Your task to perform on an android device: turn off notifications settings in the gmail app Image 0: 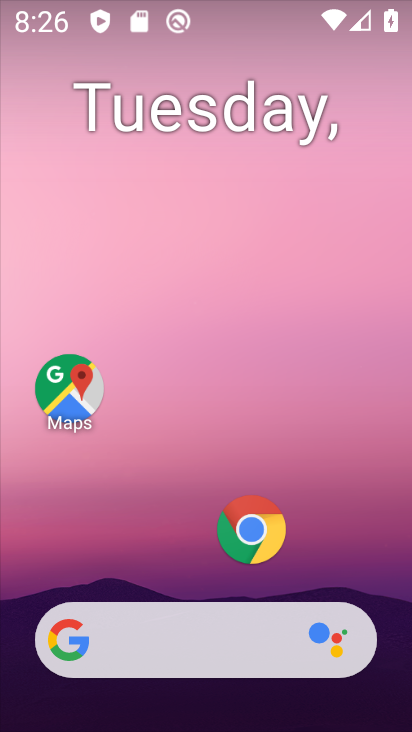
Step 0: press home button
Your task to perform on an android device: turn off notifications settings in the gmail app Image 1: 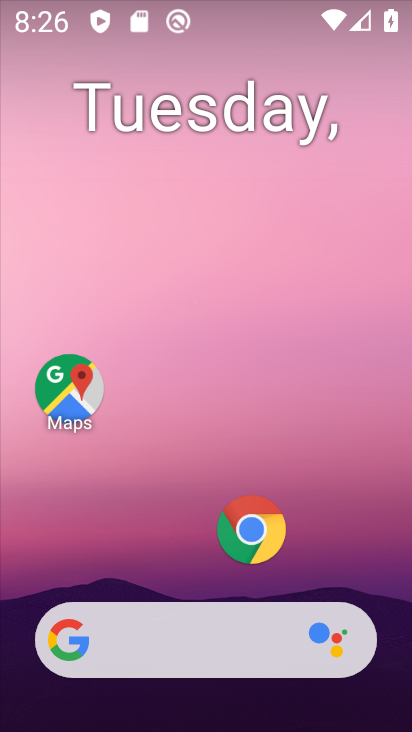
Step 1: drag from (197, 582) to (240, 29)
Your task to perform on an android device: turn off notifications settings in the gmail app Image 2: 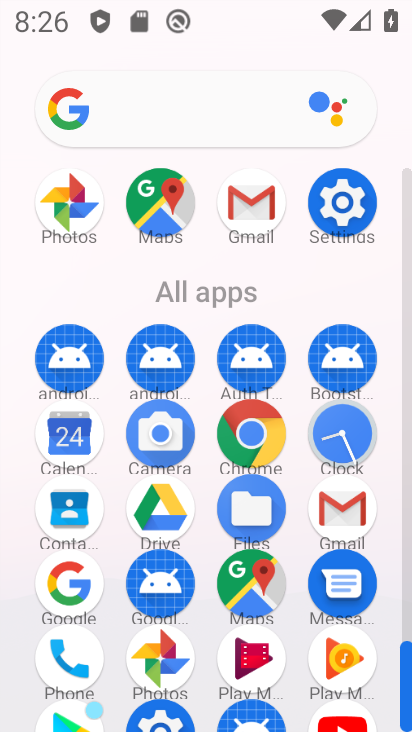
Step 2: click (337, 510)
Your task to perform on an android device: turn off notifications settings in the gmail app Image 3: 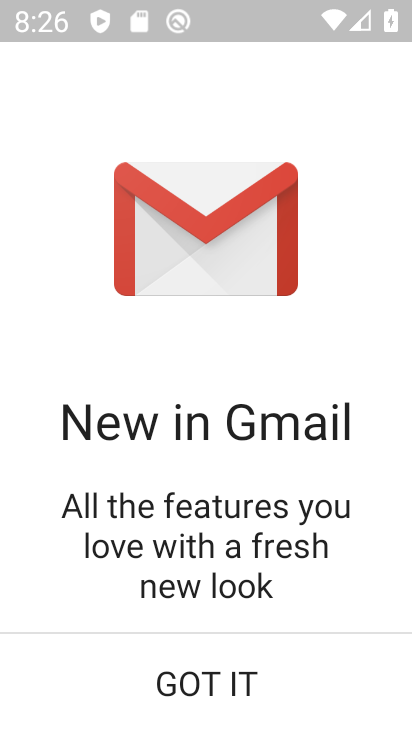
Step 3: click (209, 702)
Your task to perform on an android device: turn off notifications settings in the gmail app Image 4: 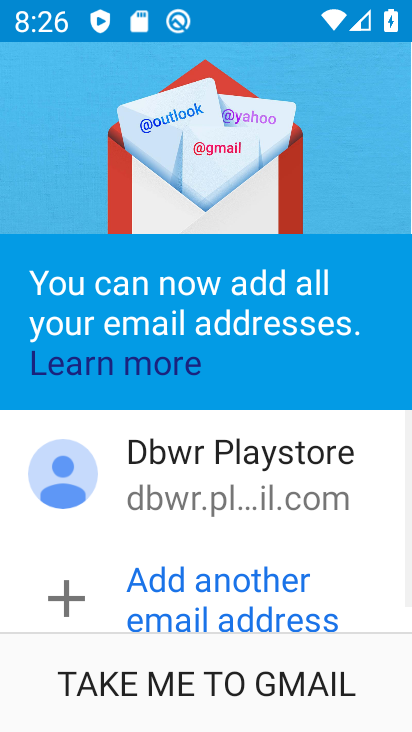
Step 4: click (209, 701)
Your task to perform on an android device: turn off notifications settings in the gmail app Image 5: 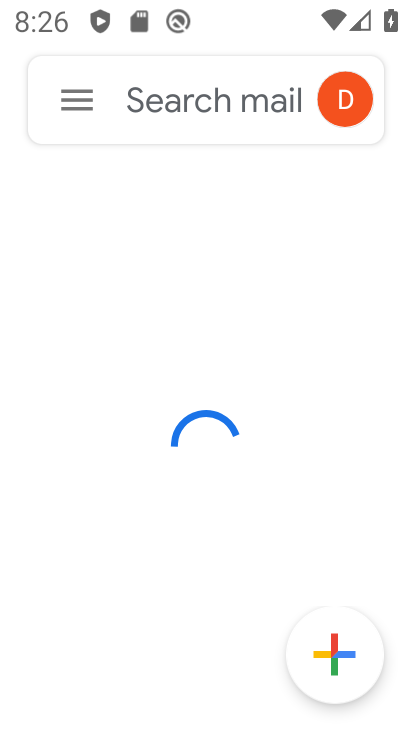
Step 5: click (72, 89)
Your task to perform on an android device: turn off notifications settings in the gmail app Image 6: 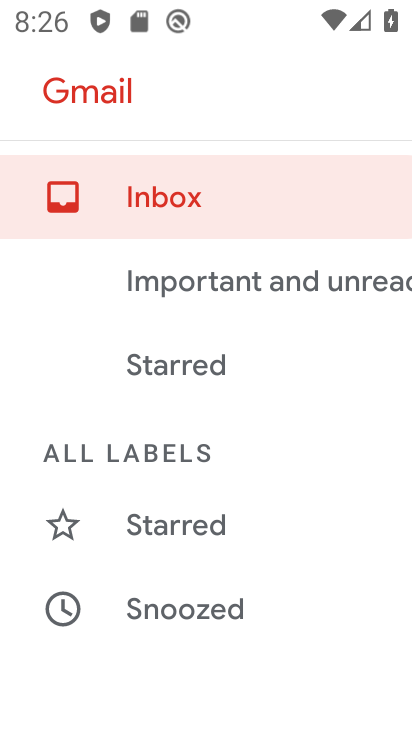
Step 6: drag from (182, 570) to (225, 65)
Your task to perform on an android device: turn off notifications settings in the gmail app Image 7: 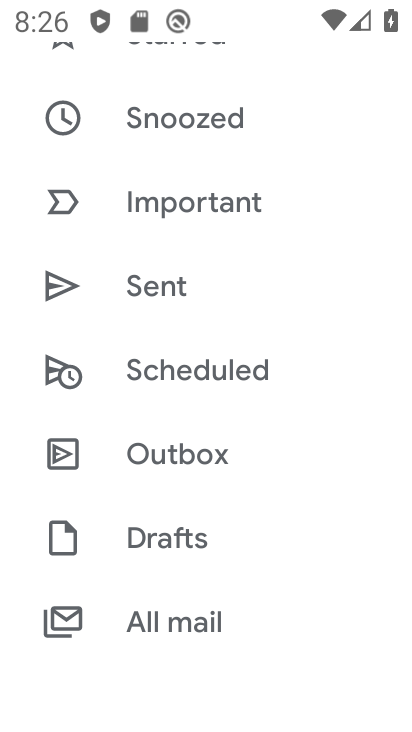
Step 7: drag from (197, 601) to (231, 106)
Your task to perform on an android device: turn off notifications settings in the gmail app Image 8: 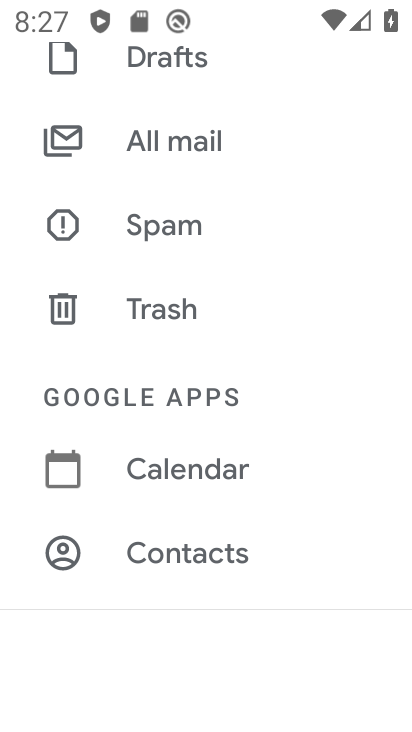
Step 8: drag from (174, 557) to (222, 171)
Your task to perform on an android device: turn off notifications settings in the gmail app Image 9: 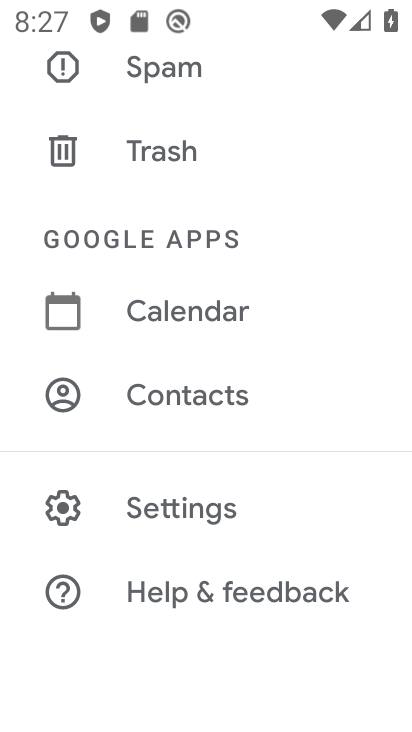
Step 9: click (258, 508)
Your task to perform on an android device: turn off notifications settings in the gmail app Image 10: 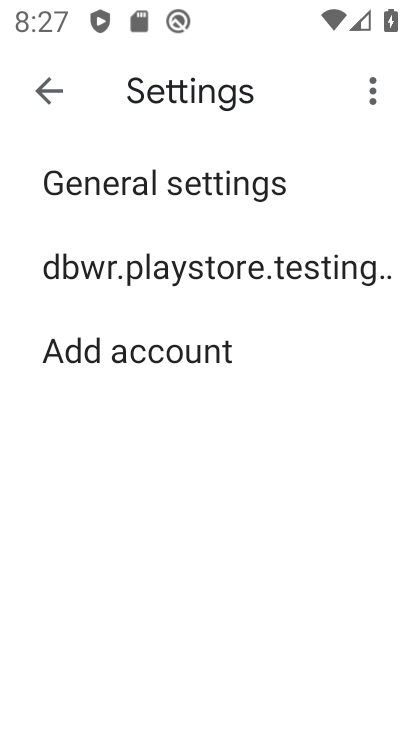
Step 10: click (174, 181)
Your task to perform on an android device: turn off notifications settings in the gmail app Image 11: 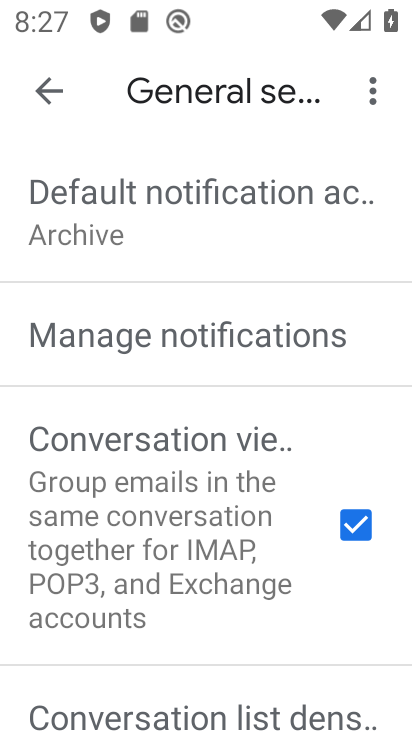
Step 11: click (212, 352)
Your task to perform on an android device: turn off notifications settings in the gmail app Image 12: 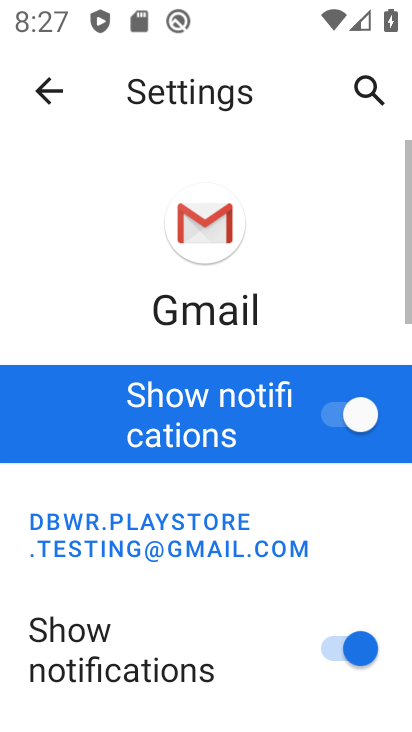
Step 12: click (343, 414)
Your task to perform on an android device: turn off notifications settings in the gmail app Image 13: 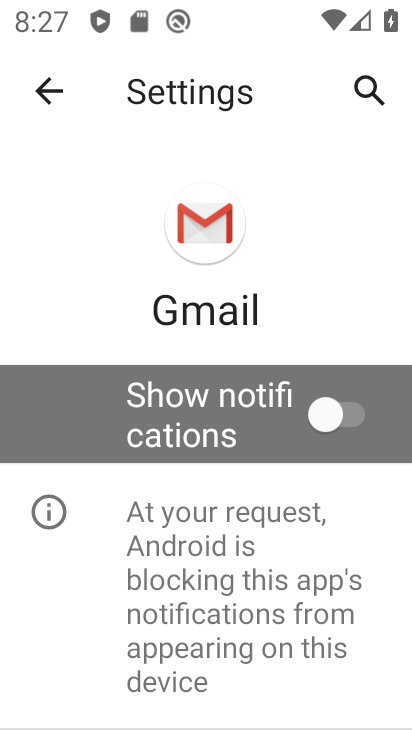
Step 13: task complete